Your task to perform on an android device: Empty the shopping cart on ebay.com. Add asus zenbook to the cart on ebay.com, then select checkout. Image 0: 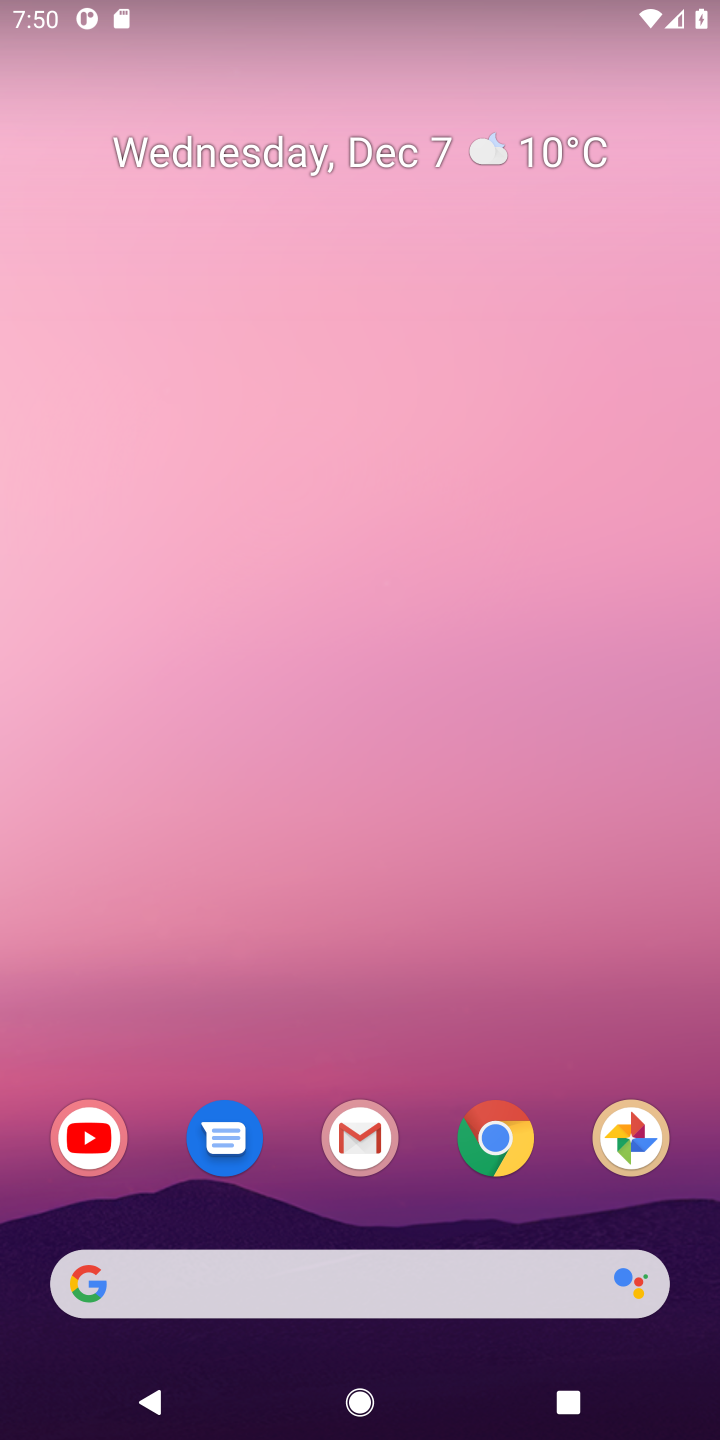
Step 0: press home button
Your task to perform on an android device: Empty the shopping cart on ebay.com. Add asus zenbook to the cart on ebay.com, then select checkout. Image 1: 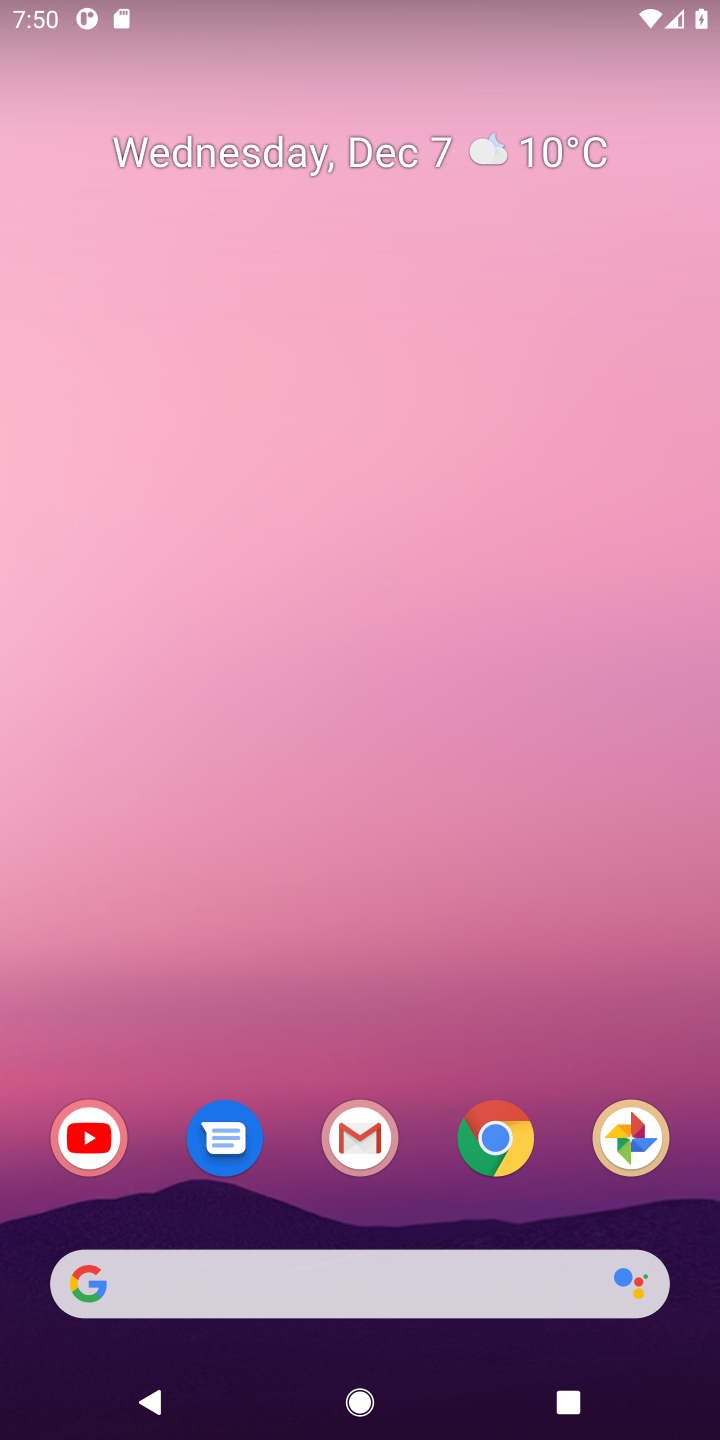
Step 1: click (139, 1282)
Your task to perform on an android device: Empty the shopping cart on ebay.com. Add asus zenbook to the cart on ebay.com, then select checkout. Image 2: 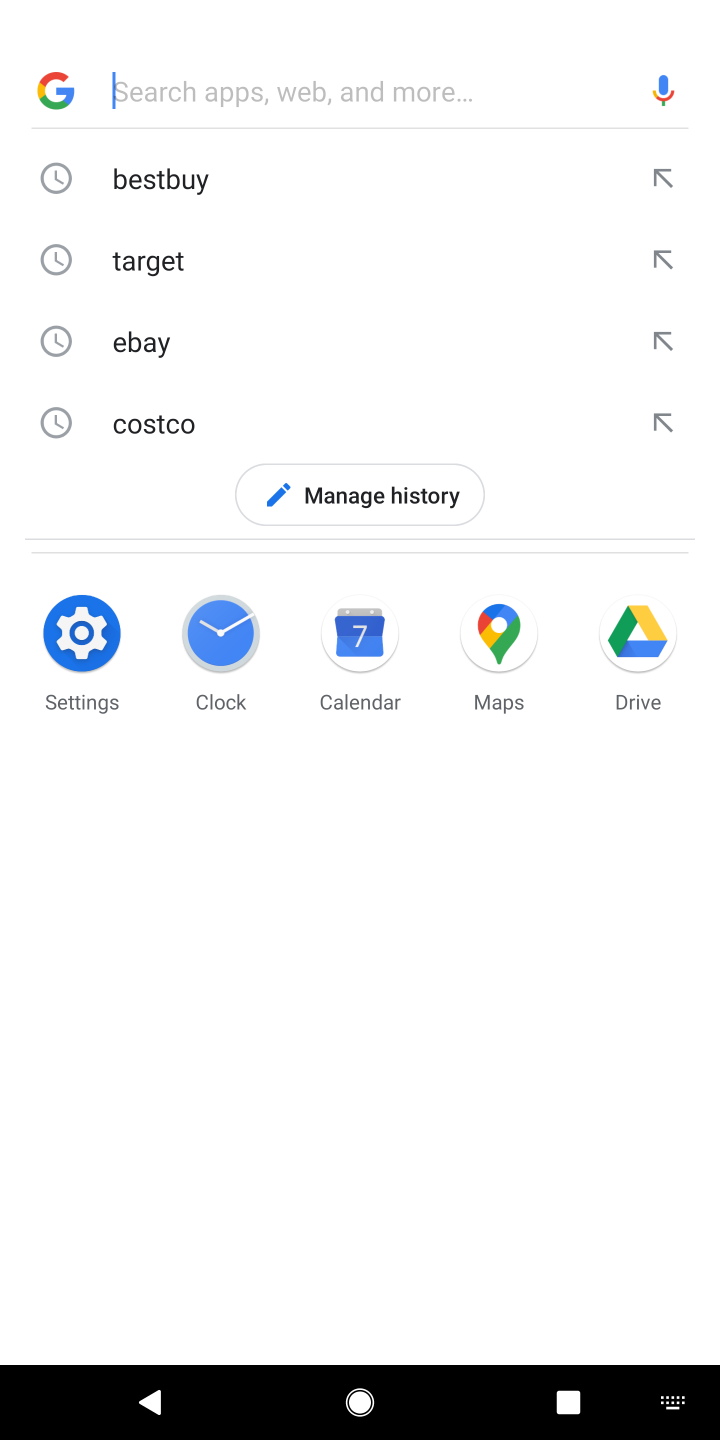
Step 2: press enter
Your task to perform on an android device: Empty the shopping cart on ebay.com. Add asus zenbook to the cart on ebay.com, then select checkout. Image 3: 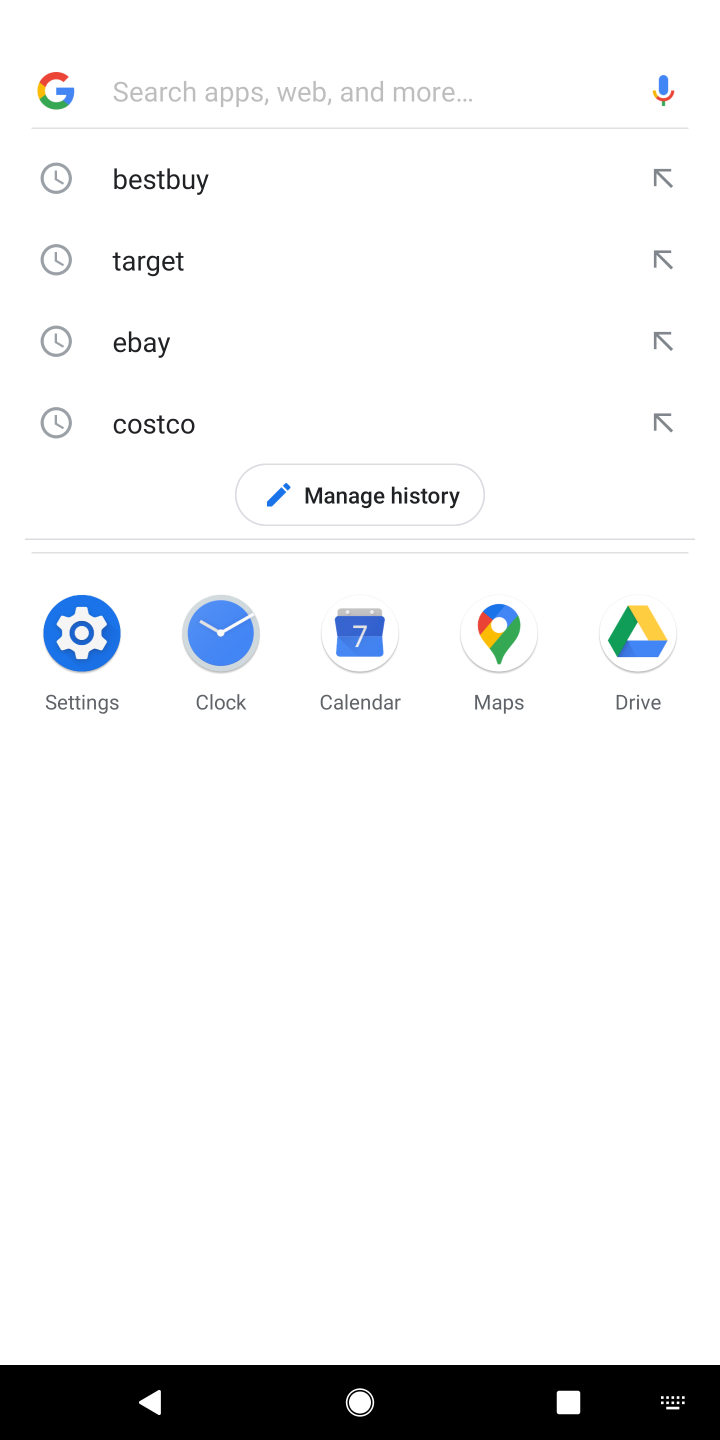
Step 3: type "ebay.com"
Your task to perform on an android device: Empty the shopping cart on ebay.com. Add asus zenbook to the cart on ebay.com, then select checkout. Image 4: 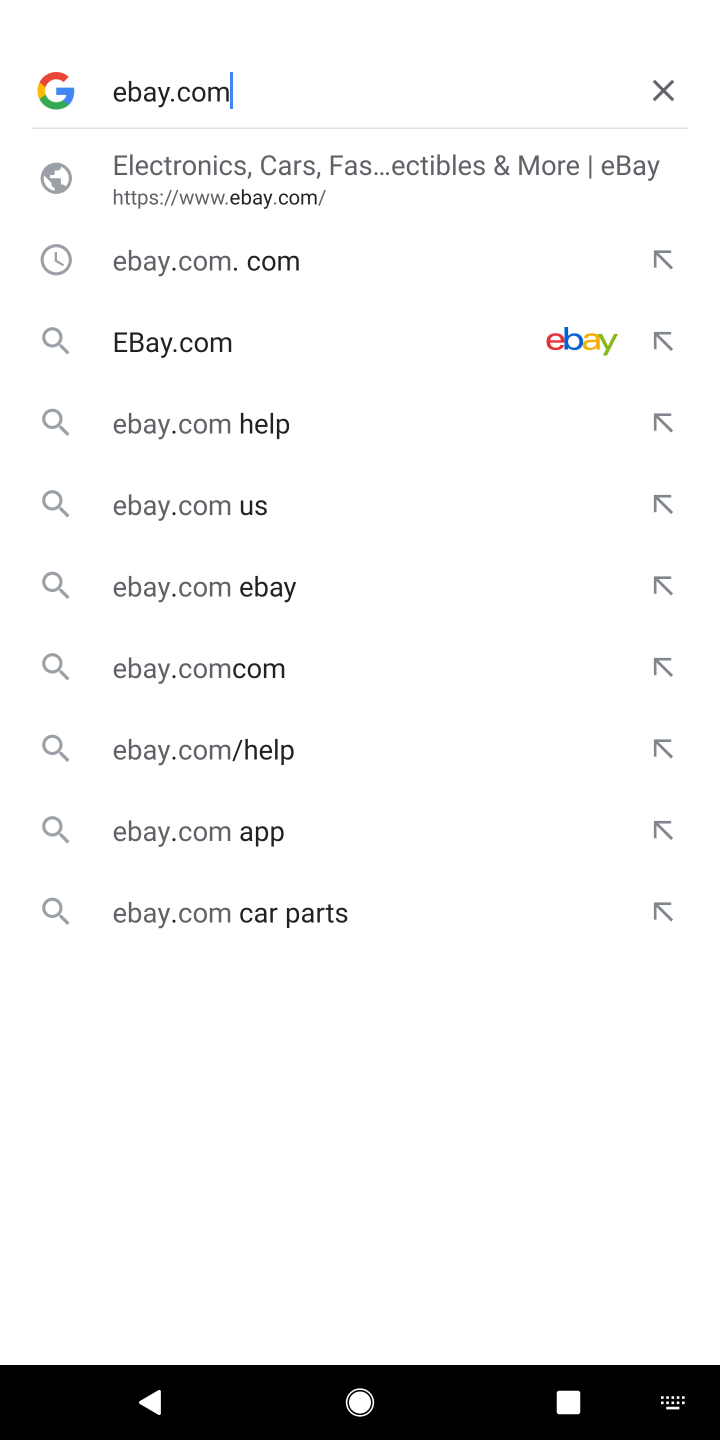
Step 4: press enter
Your task to perform on an android device: Empty the shopping cart on ebay.com. Add asus zenbook to the cart on ebay.com, then select checkout. Image 5: 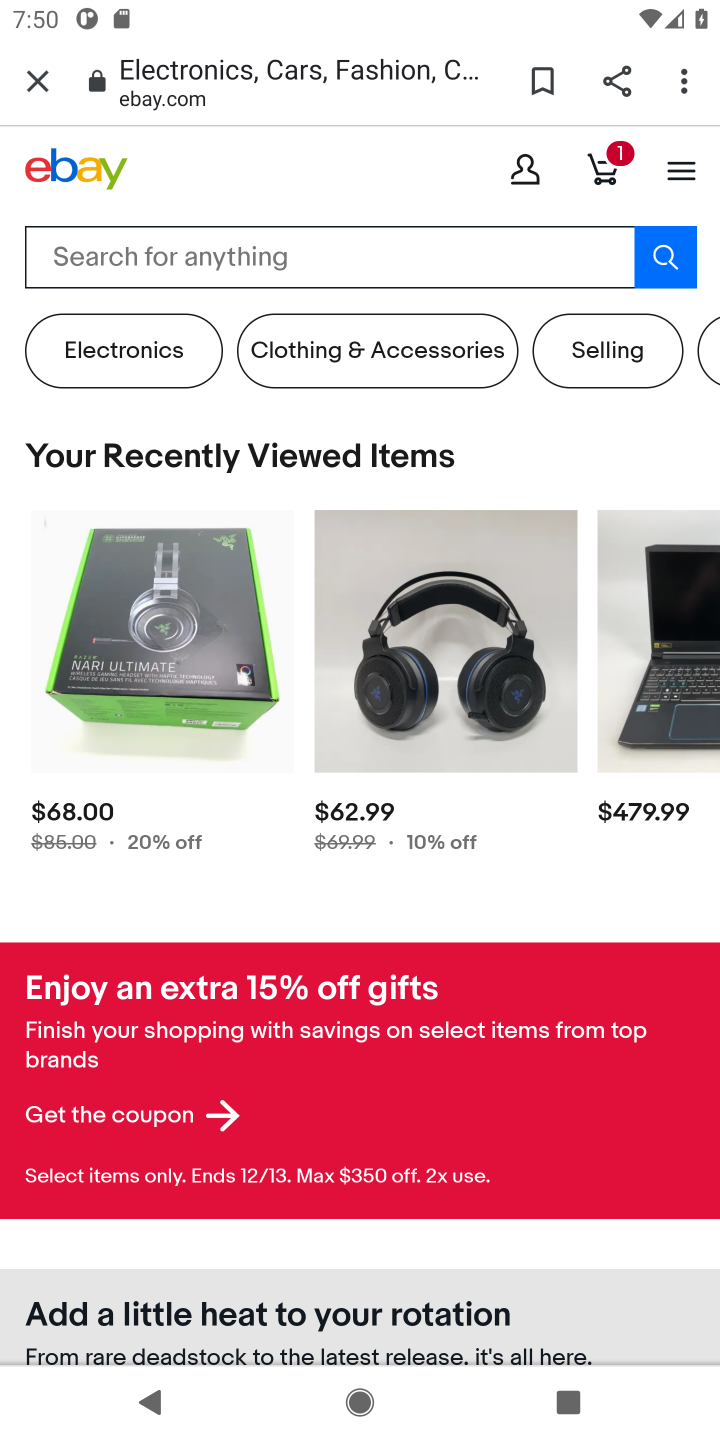
Step 5: click (597, 161)
Your task to perform on an android device: Empty the shopping cart on ebay.com. Add asus zenbook to the cart on ebay.com, then select checkout. Image 6: 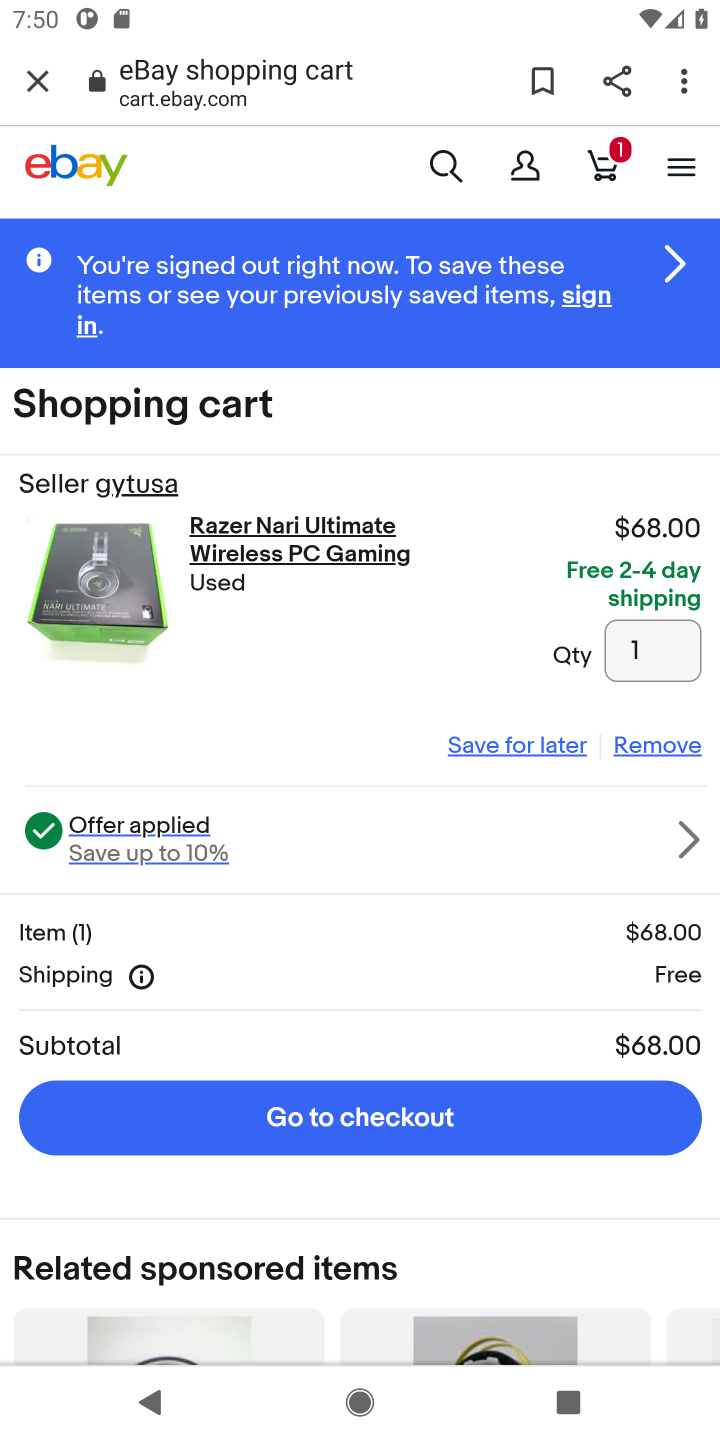
Step 6: click (659, 744)
Your task to perform on an android device: Empty the shopping cart on ebay.com. Add asus zenbook to the cart on ebay.com, then select checkout. Image 7: 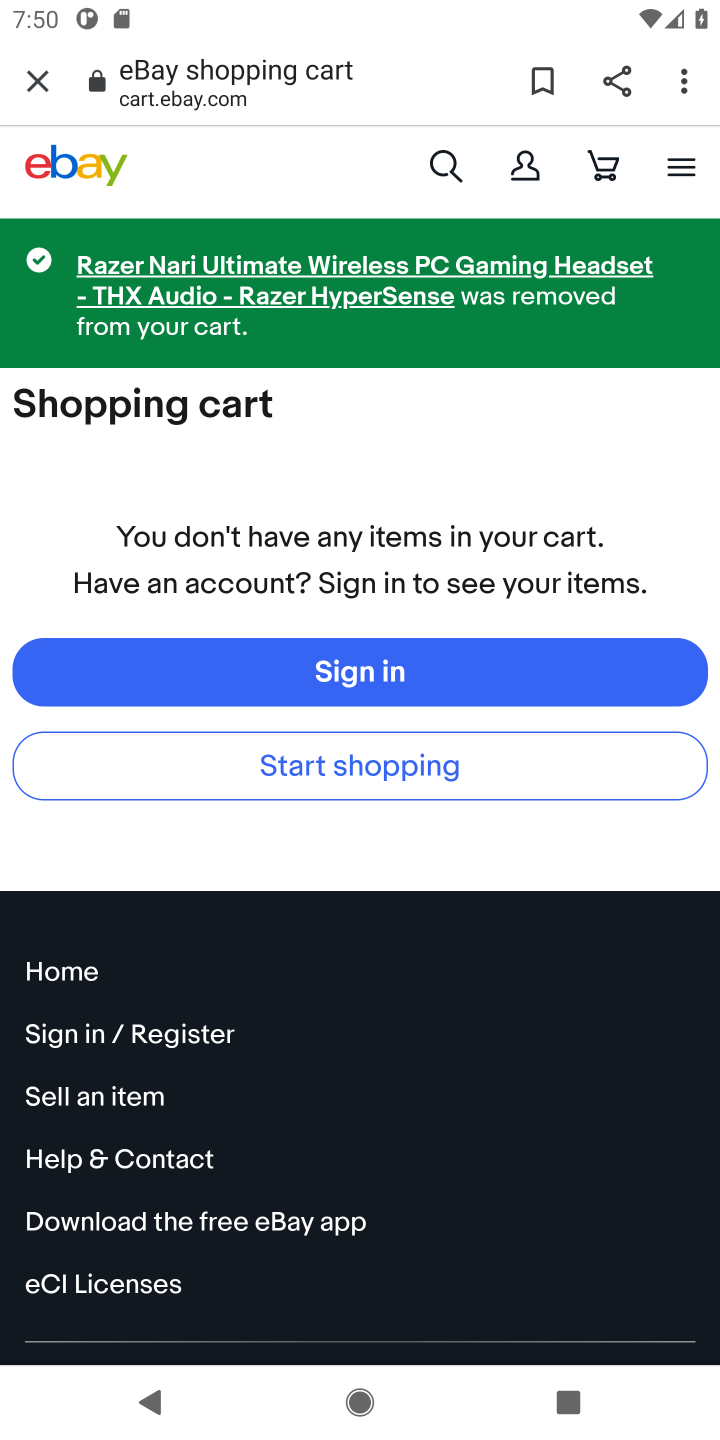
Step 7: click (439, 159)
Your task to perform on an android device: Empty the shopping cart on ebay.com. Add asus zenbook to the cart on ebay.com, then select checkout. Image 8: 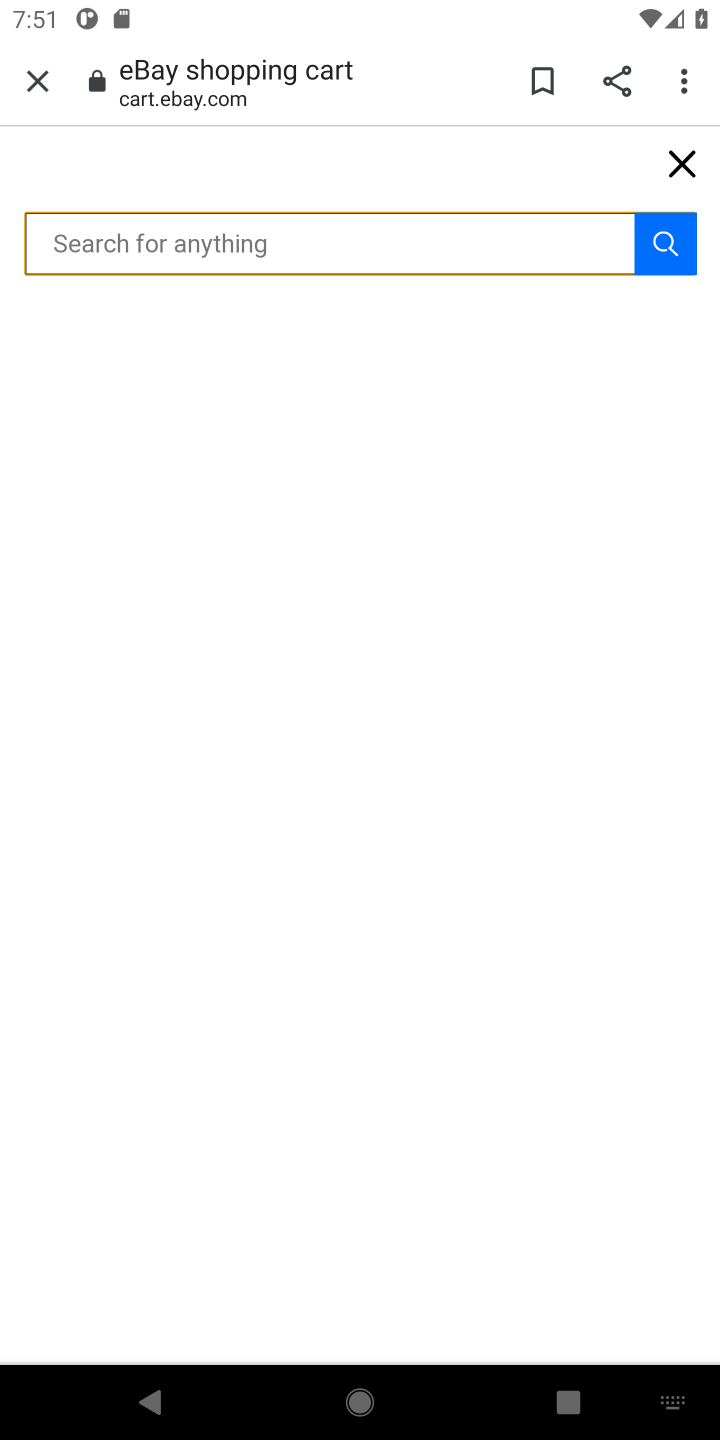
Step 8: type "asus zenbook"
Your task to perform on an android device: Empty the shopping cart on ebay.com. Add asus zenbook to the cart on ebay.com, then select checkout. Image 9: 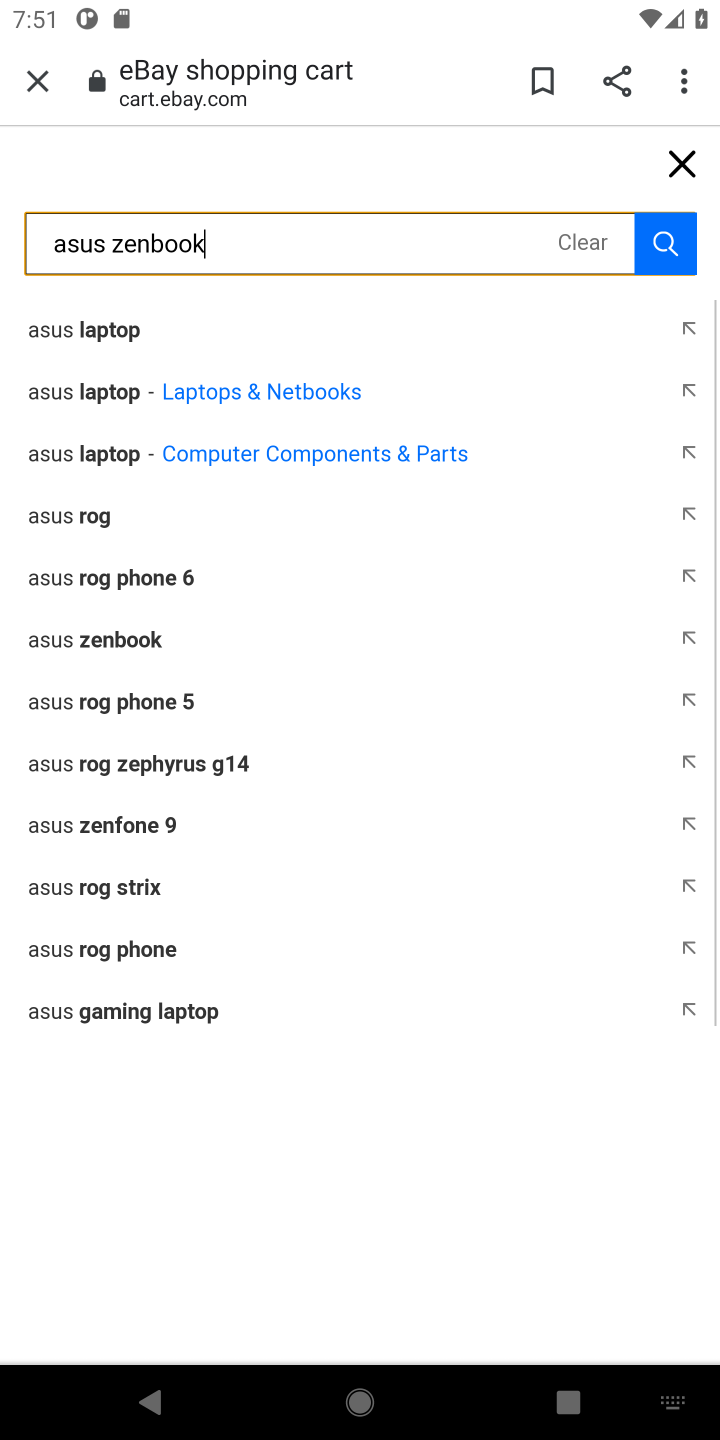
Step 9: press enter
Your task to perform on an android device: Empty the shopping cart on ebay.com. Add asus zenbook to the cart on ebay.com, then select checkout. Image 10: 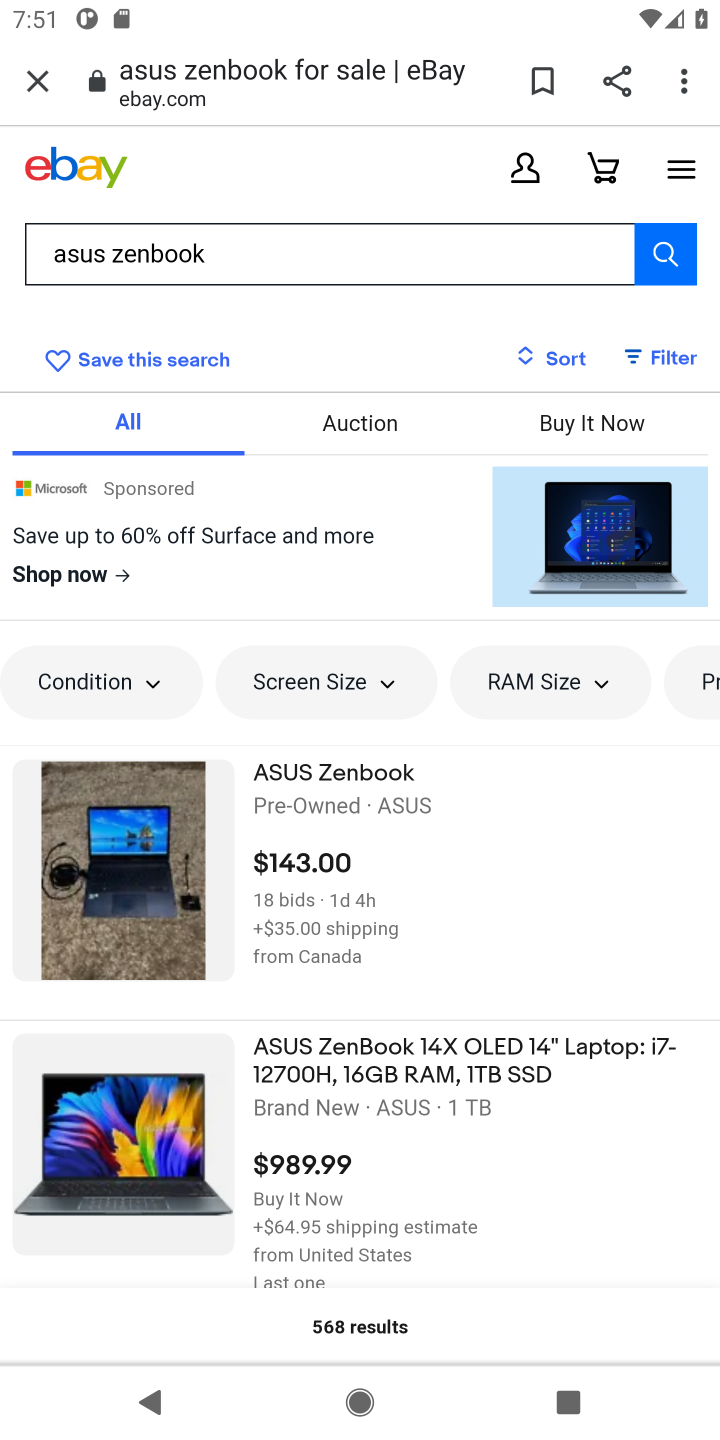
Step 10: click (303, 781)
Your task to perform on an android device: Empty the shopping cart on ebay.com. Add asus zenbook to the cart on ebay.com, then select checkout. Image 11: 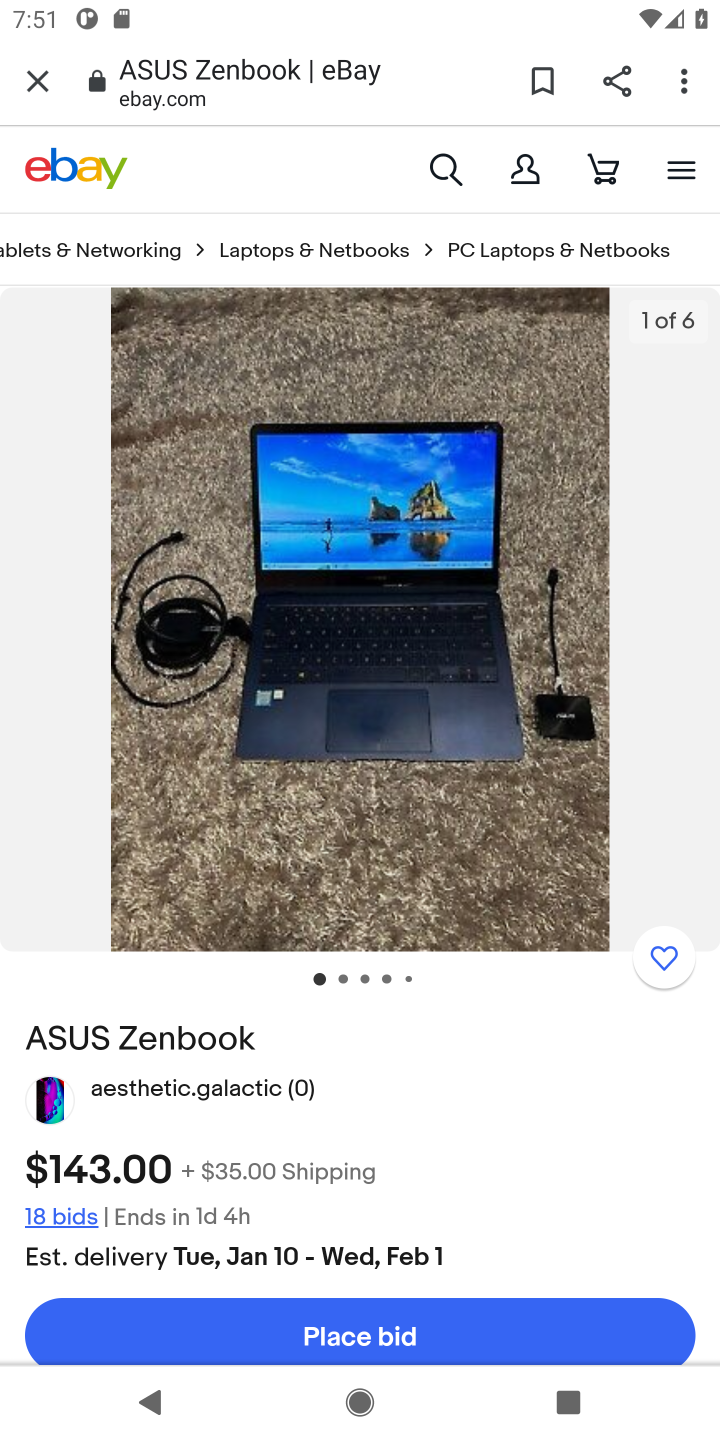
Step 11: click (330, 1330)
Your task to perform on an android device: Empty the shopping cart on ebay.com. Add asus zenbook to the cart on ebay.com, then select checkout. Image 12: 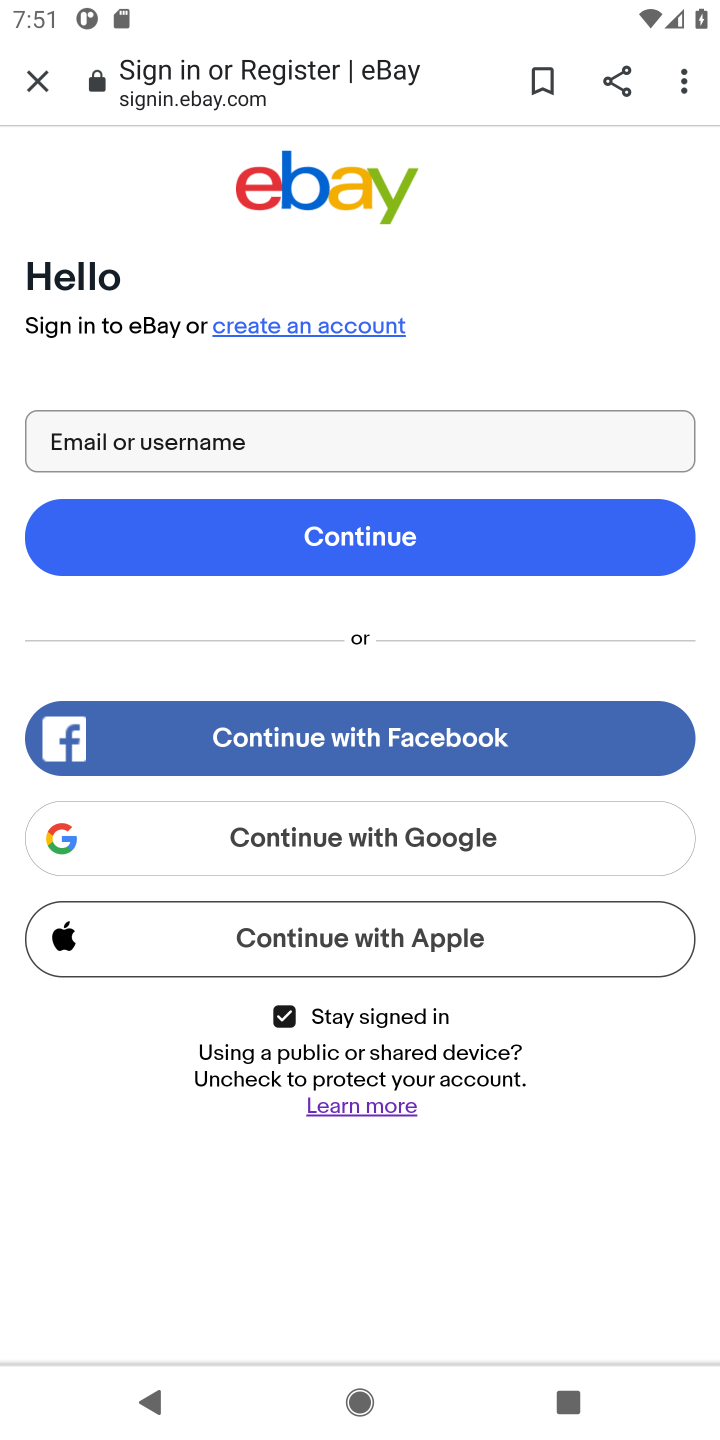
Step 12: task complete